Your task to perform on an android device: toggle priority inbox in the gmail app Image 0: 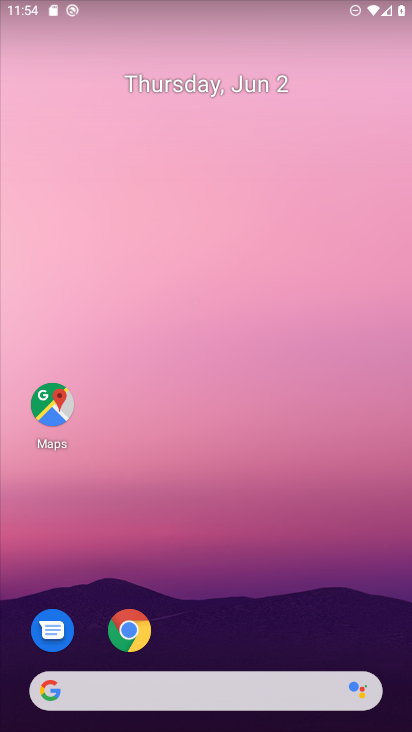
Step 0: drag from (226, 633) to (184, 232)
Your task to perform on an android device: toggle priority inbox in the gmail app Image 1: 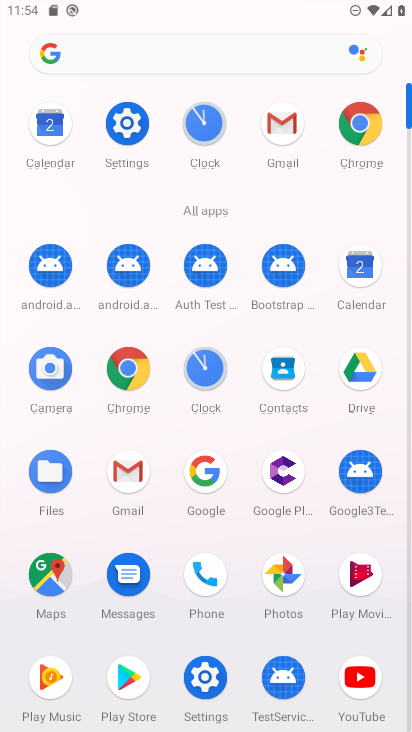
Step 1: click (285, 134)
Your task to perform on an android device: toggle priority inbox in the gmail app Image 2: 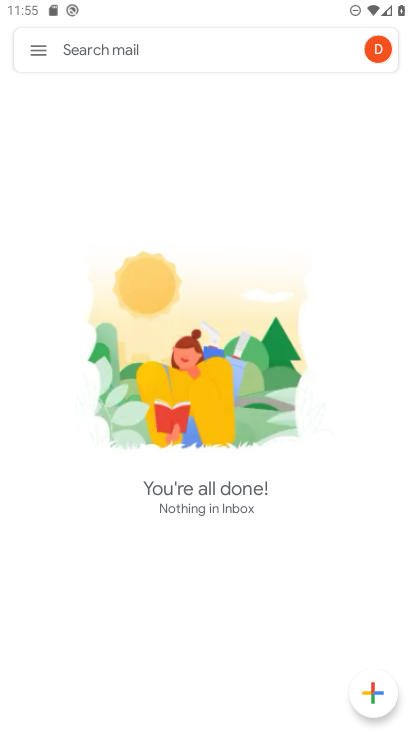
Step 2: click (56, 67)
Your task to perform on an android device: toggle priority inbox in the gmail app Image 3: 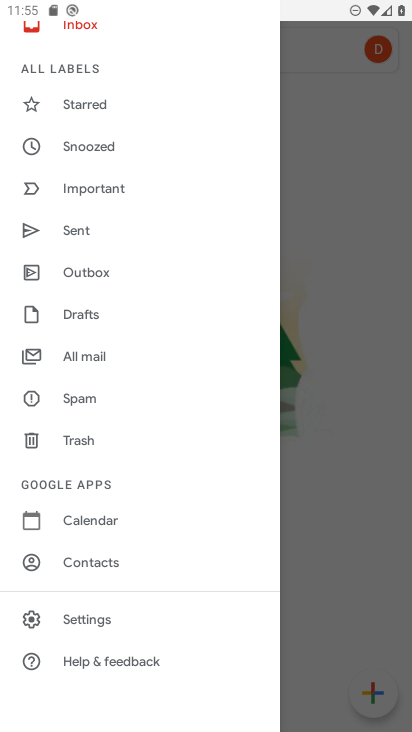
Step 3: click (107, 619)
Your task to perform on an android device: toggle priority inbox in the gmail app Image 4: 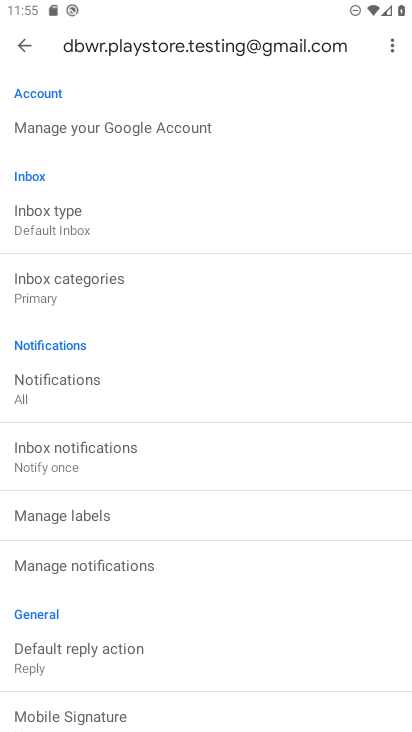
Step 4: click (141, 675)
Your task to perform on an android device: toggle priority inbox in the gmail app Image 5: 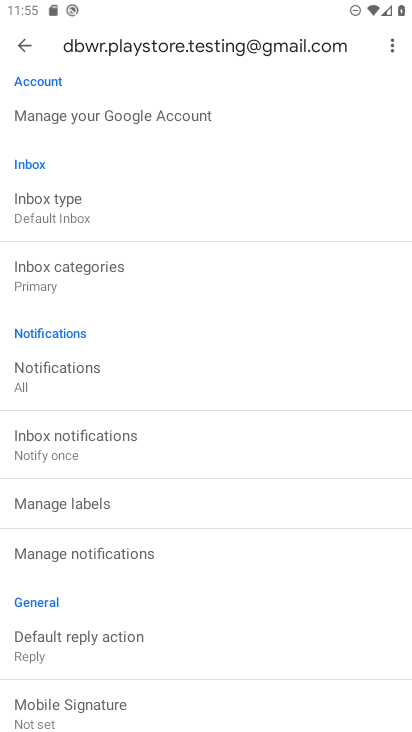
Step 5: click (84, 202)
Your task to perform on an android device: toggle priority inbox in the gmail app Image 6: 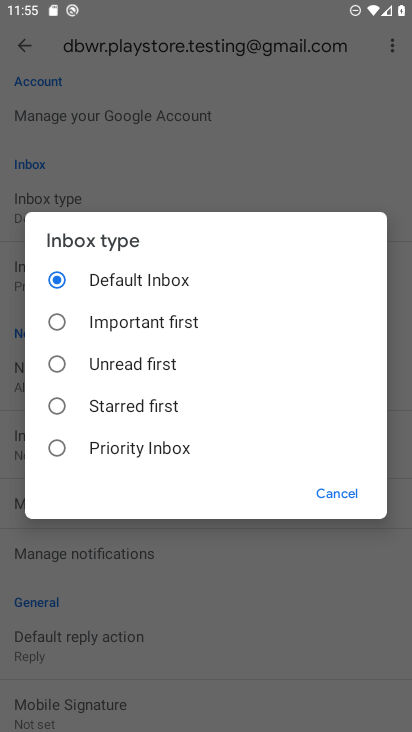
Step 6: click (145, 457)
Your task to perform on an android device: toggle priority inbox in the gmail app Image 7: 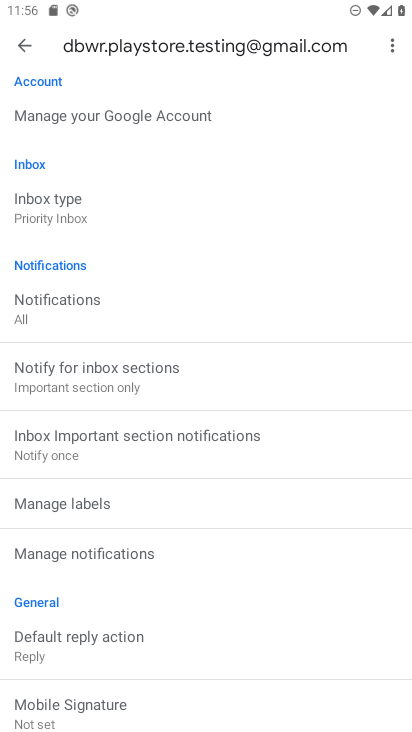
Step 7: task complete